Your task to perform on an android device: Open the stopwatch Image 0: 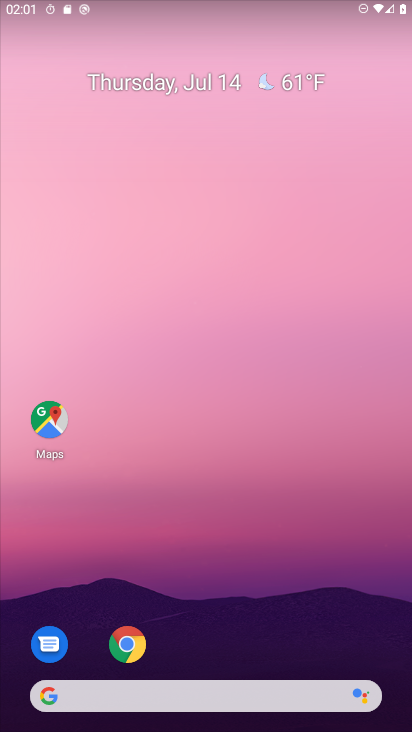
Step 0: drag from (288, 505) to (272, 78)
Your task to perform on an android device: Open the stopwatch Image 1: 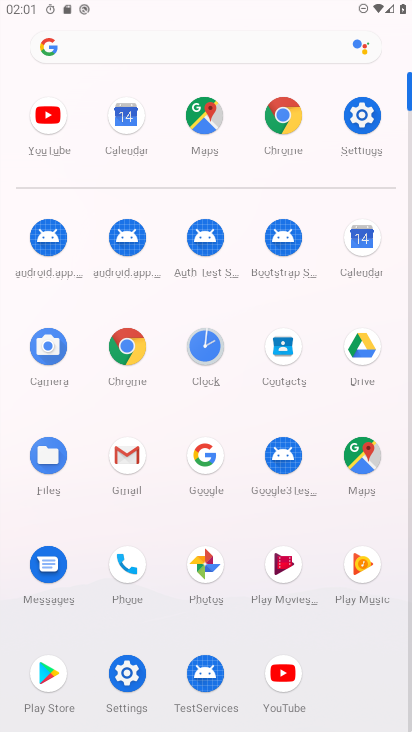
Step 1: click (208, 339)
Your task to perform on an android device: Open the stopwatch Image 2: 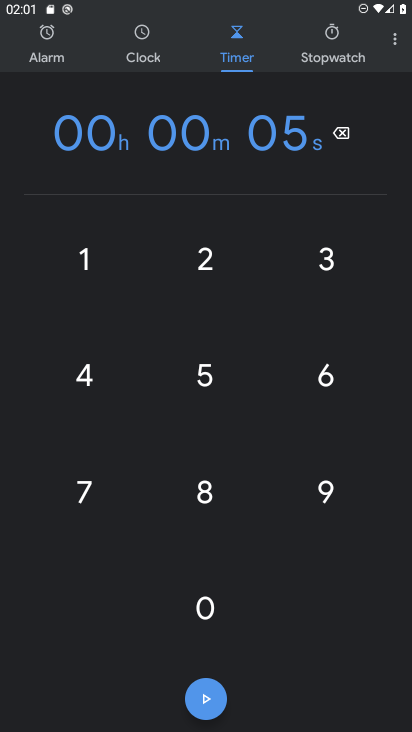
Step 2: click (324, 42)
Your task to perform on an android device: Open the stopwatch Image 3: 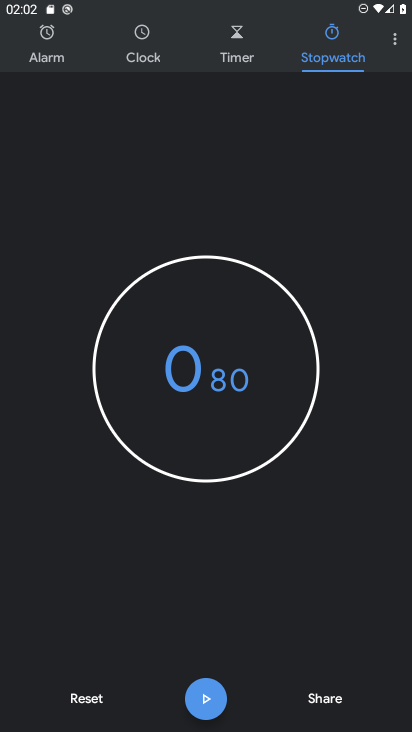
Step 3: task complete